Your task to perform on an android device: turn off smart reply in the gmail app Image 0: 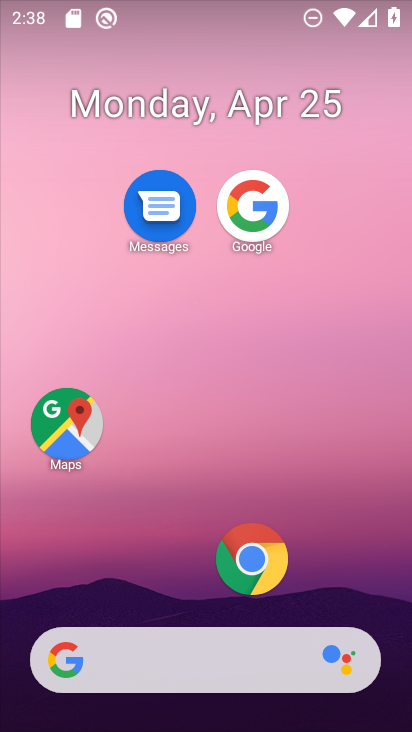
Step 0: drag from (176, 574) to (227, 107)
Your task to perform on an android device: turn off smart reply in the gmail app Image 1: 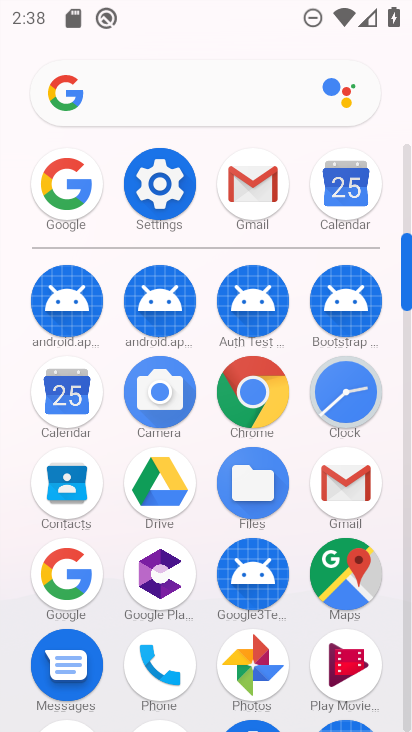
Step 1: click (254, 183)
Your task to perform on an android device: turn off smart reply in the gmail app Image 2: 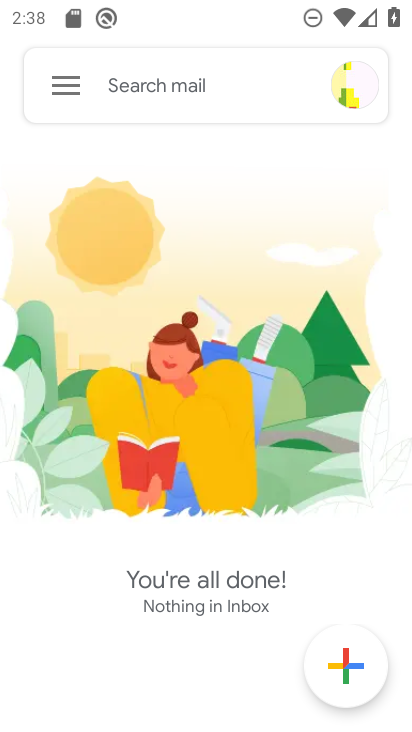
Step 2: click (63, 83)
Your task to perform on an android device: turn off smart reply in the gmail app Image 3: 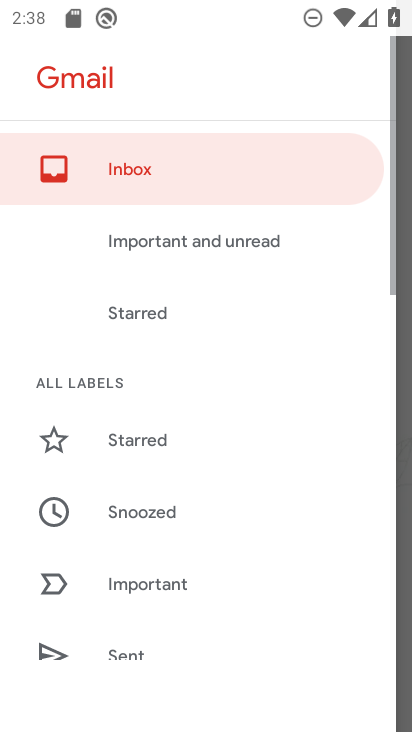
Step 3: drag from (291, 527) to (315, 117)
Your task to perform on an android device: turn off smart reply in the gmail app Image 4: 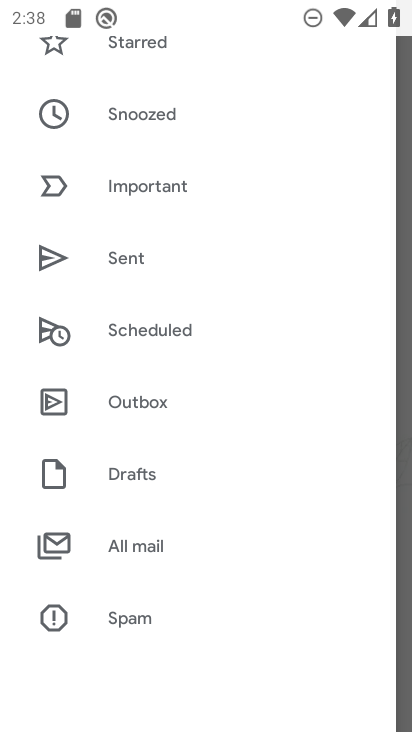
Step 4: drag from (164, 545) to (203, 169)
Your task to perform on an android device: turn off smart reply in the gmail app Image 5: 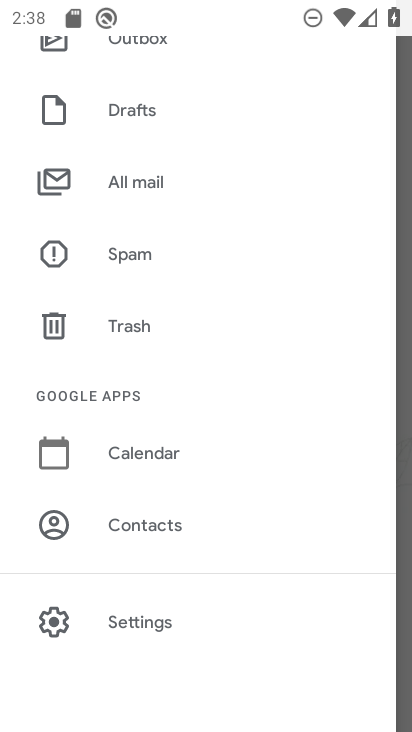
Step 5: click (140, 617)
Your task to perform on an android device: turn off smart reply in the gmail app Image 6: 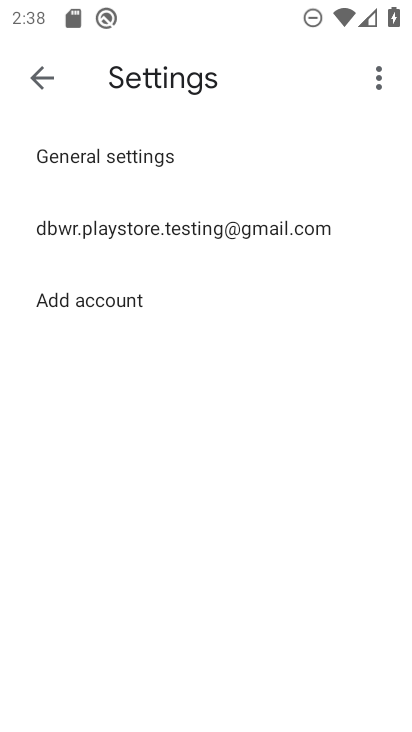
Step 6: click (129, 222)
Your task to perform on an android device: turn off smart reply in the gmail app Image 7: 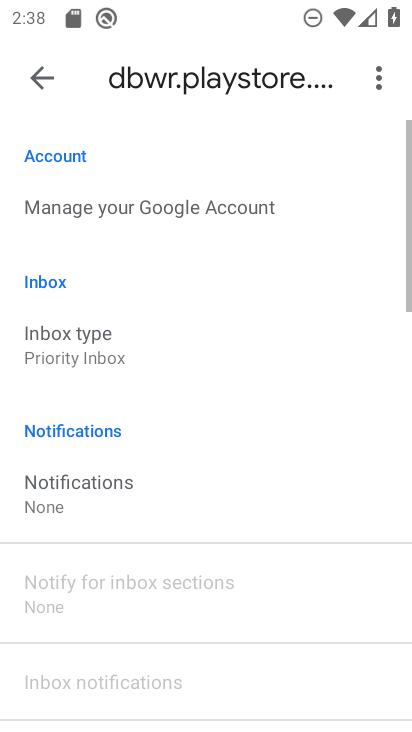
Step 7: drag from (250, 630) to (262, 89)
Your task to perform on an android device: turn off smart reply in the gmail app Image 8: 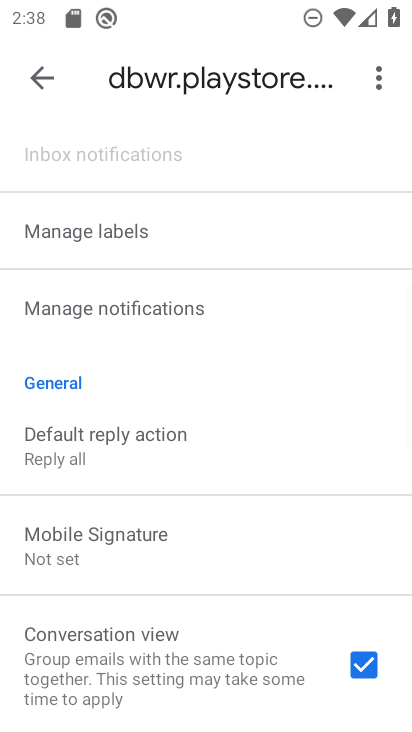
Step 8: drag from (222, 608) to (265, 175)
Your task to perform on an android device: turn off smart reply in the gmail app Image 9: 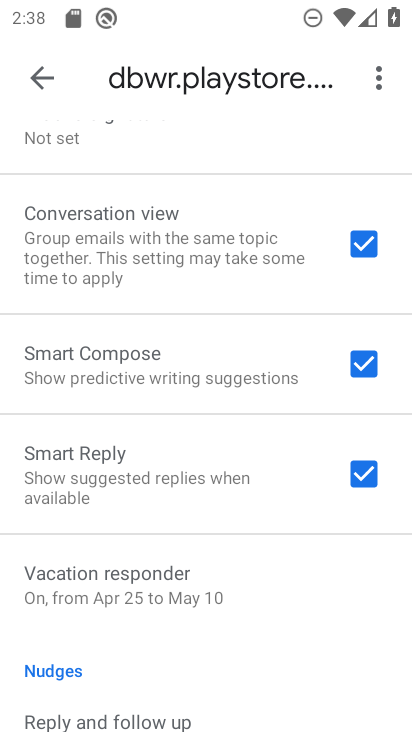
Step 9: click (373, 468)
Your task to perform on an android device: turn off smart reply in the gmail app Image 10: 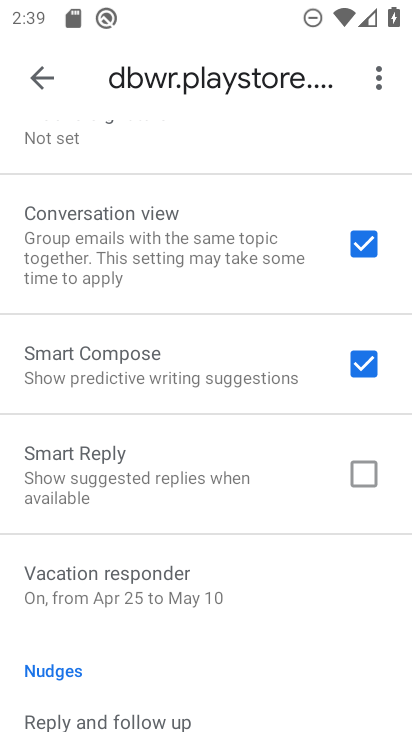
Step 10: task complete